Your task to perform on an android device: read, delete, or share a saved page in the chrome app Image 0: 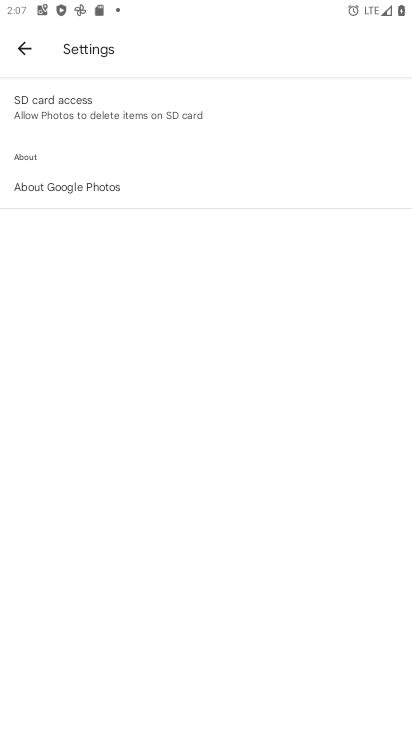
Step 0: press home button
Your task to perform on an android device: read, delete, or share a saved page in the chrome app Image 1: 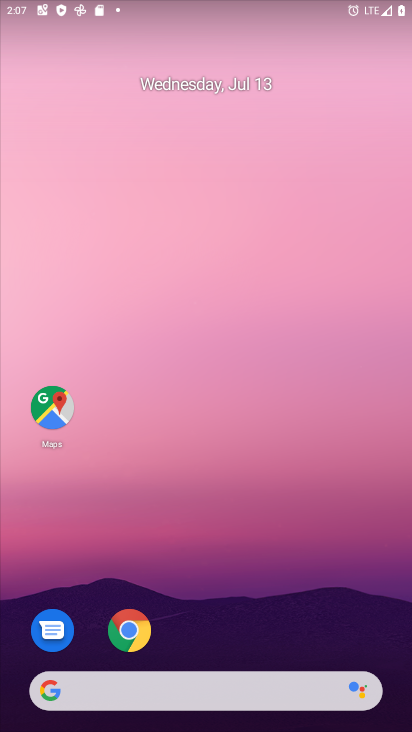
Step 1: drag from (378, 650) to (281, 25)
Your task to perform on an android device: read, delete, or share a saved page in the chrome app Image 2: 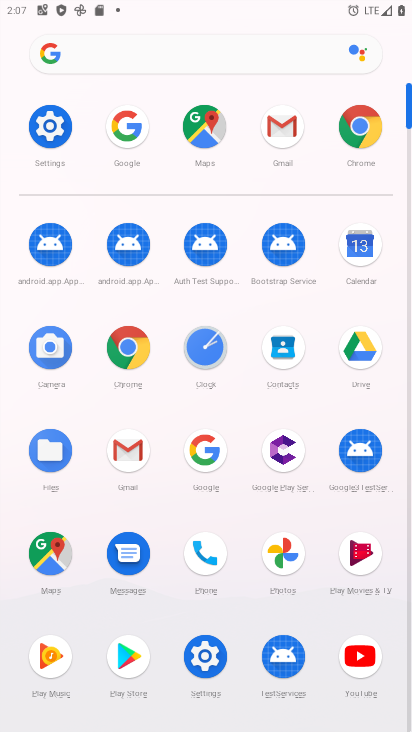
Step 2: click (131, 346)
Your task to perform on an android device: read, delete, or share a saved page in the chrome app Image 3: 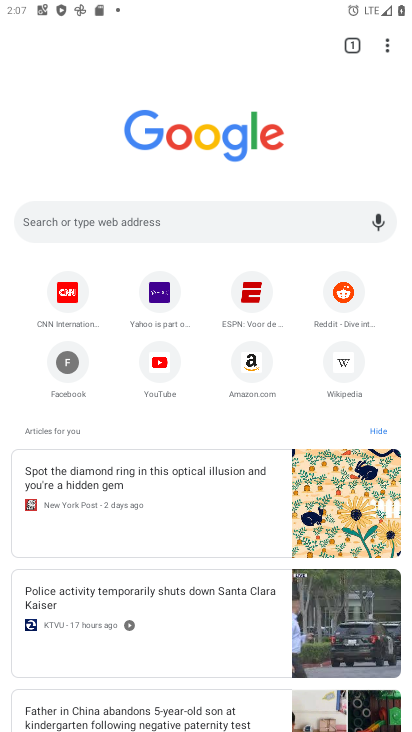
Step 3: task complete